Your task to perform on an android device: turn off location history Image 0: 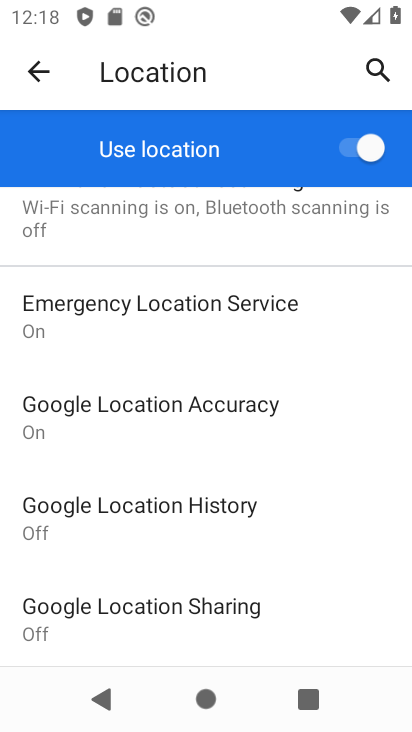
Step 0: click (139, 512)
Your task to perform on an android device: turn off location history Image 1: 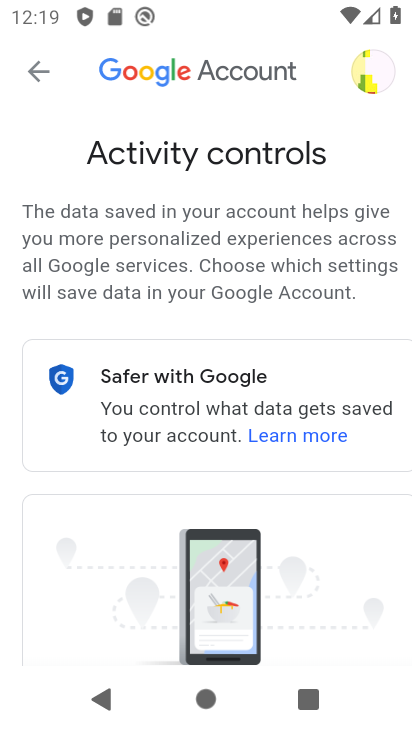
Step 1: drag from (350, 622) to (333, 361)
Your task to perform on an android device: turn off location history Image 2: 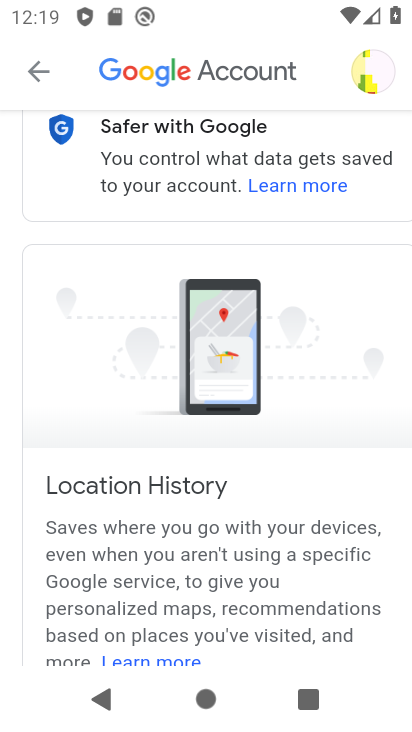
Step 2: drag from (295, 561) to (295, 170)
Your task to perform on an android device: turn off location history Image 3: 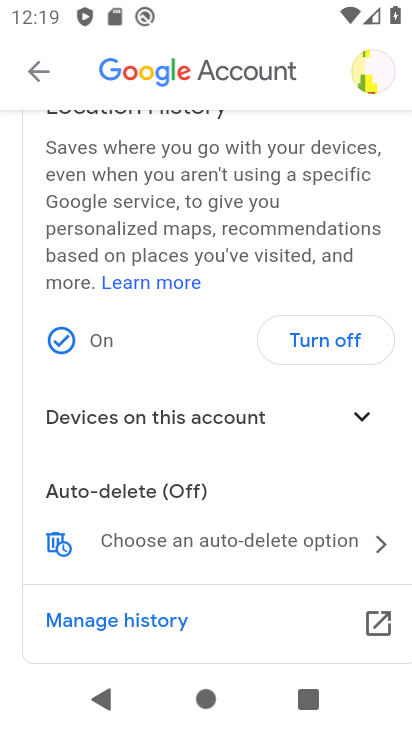
Step 3: click (325, 343)
Your task to perform on an android device: turn off location history Image 4: 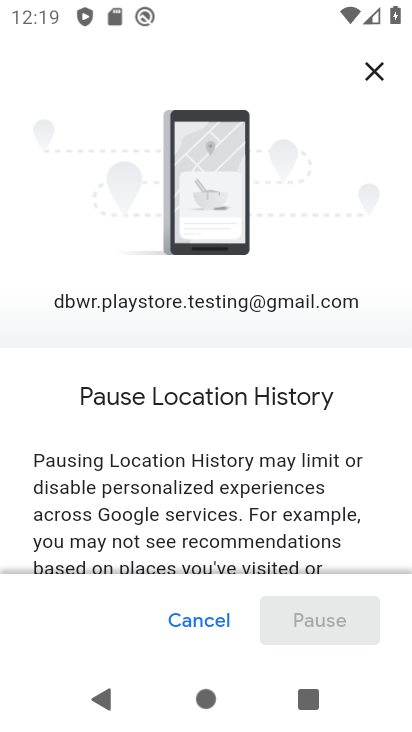
Step 4: drag from (283, 557) to (284, 22)
Your task to perform on an android device: turn off location history Image 5: 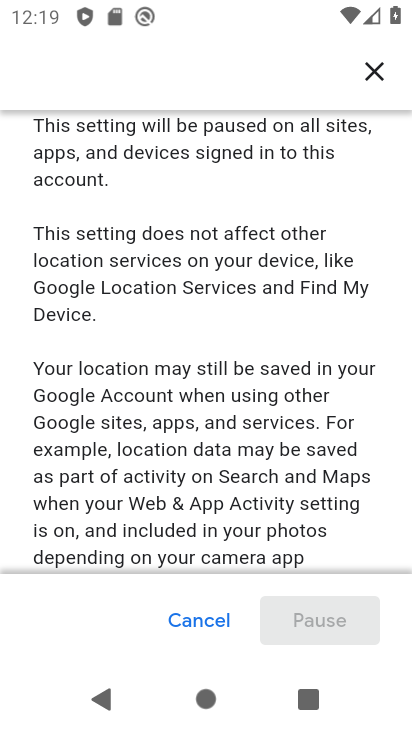
Step 5: drag from (218, 447) to (233, 90)
Your task to perform on an android device: turn off location history Image 6: 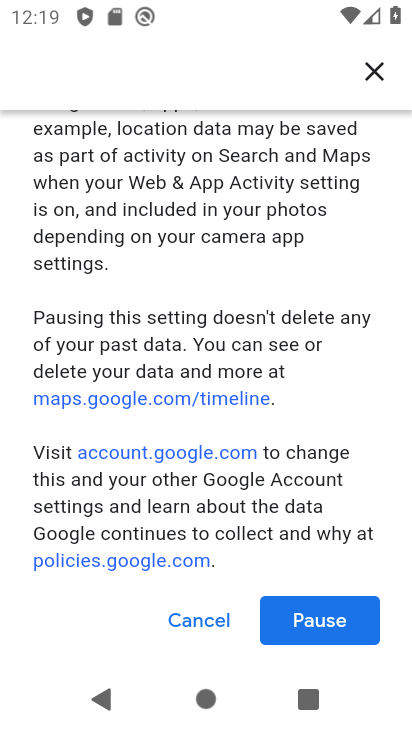
Step 6: click (289, 624)
Your task to perform on an android device: turn off location history Image 7: 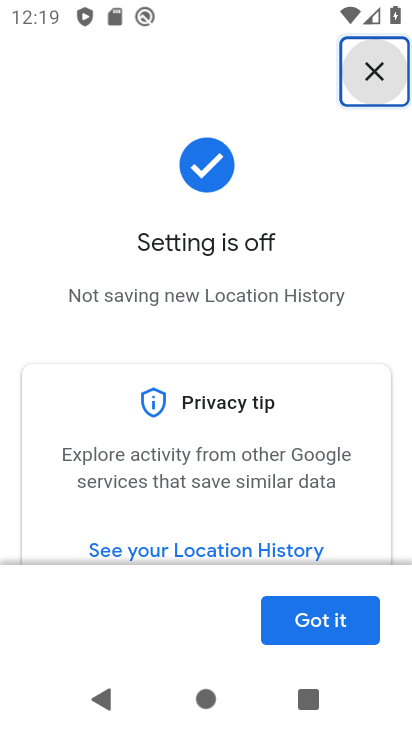
Step 7: drag from (239, 549) to (299, 87)
Your task to perform on an android device: turn off location history Image 8: 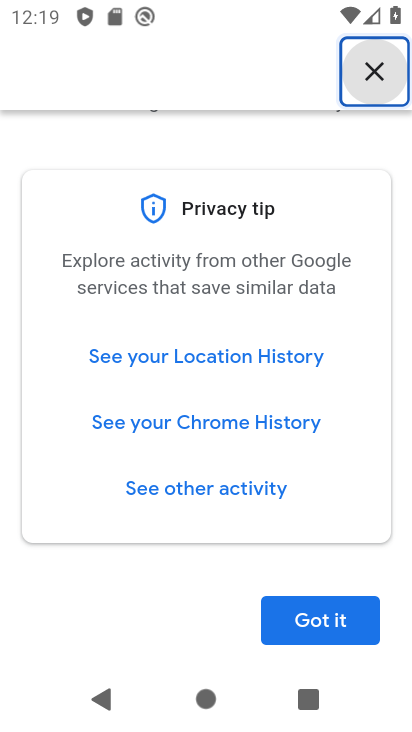
Step 8: click (350, 634)
Your task to perform on an android device: turn off location history Image 9: 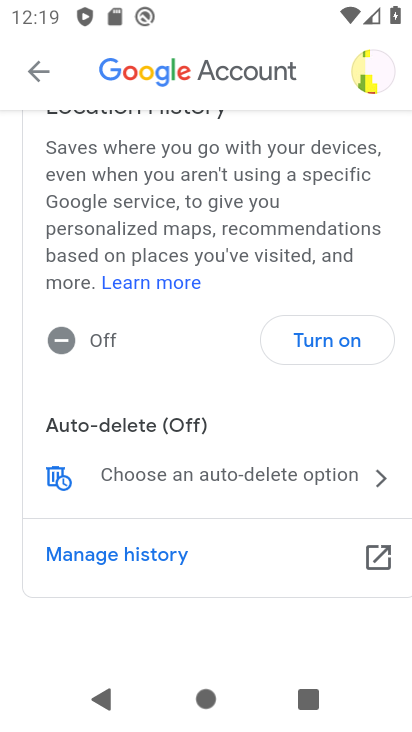
Step 9: task complete